Your task to perform on an android device: Open Android settings Image 0: 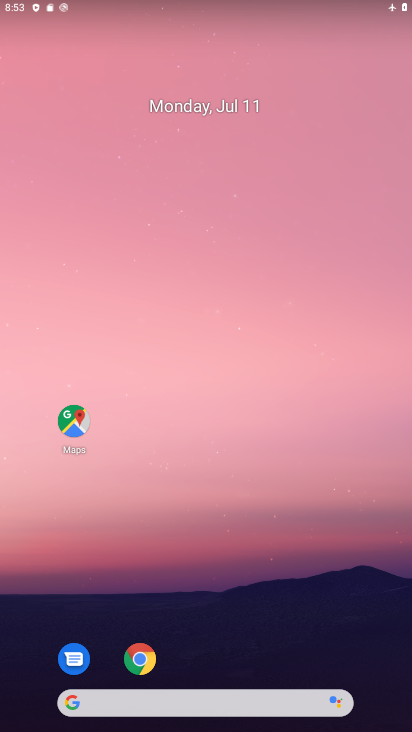
Step 0: drag from (219, 665) to (167, 181)
Your task to perform on an android device: Open Android settings Image 1: 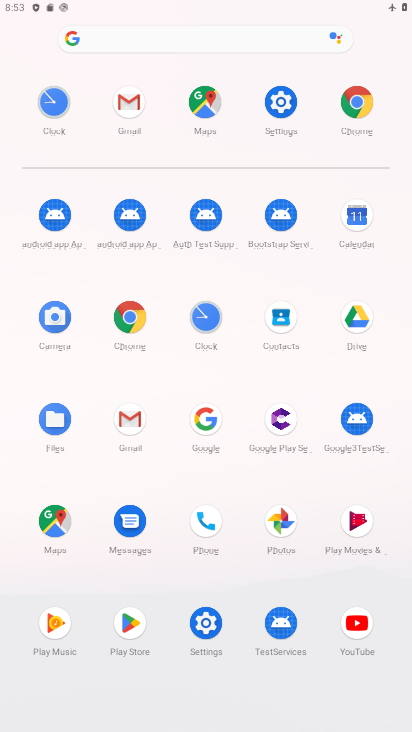
Step 1: click (283, 111)
Your task to perform on an android device: Open Android settings Image 2: 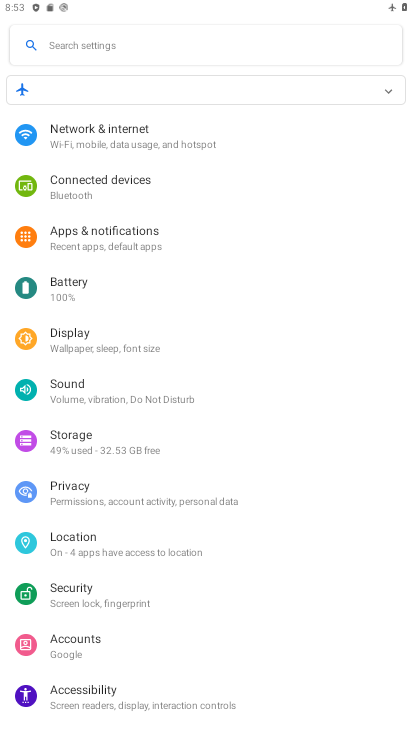
Step 2: task complete